Your task to perform on an android device: Go to calendar. Show me events next week Image 0: 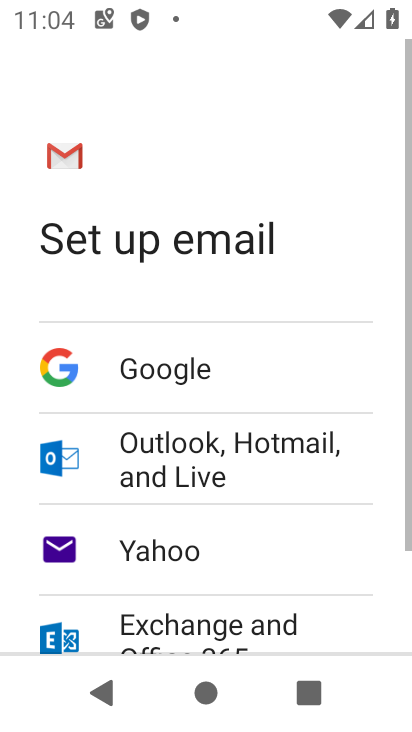
Step 0: drag from (225, 581) to (239, 136)
Your task to perform on an android device: Go to calendar. Show me events next week Image 1: 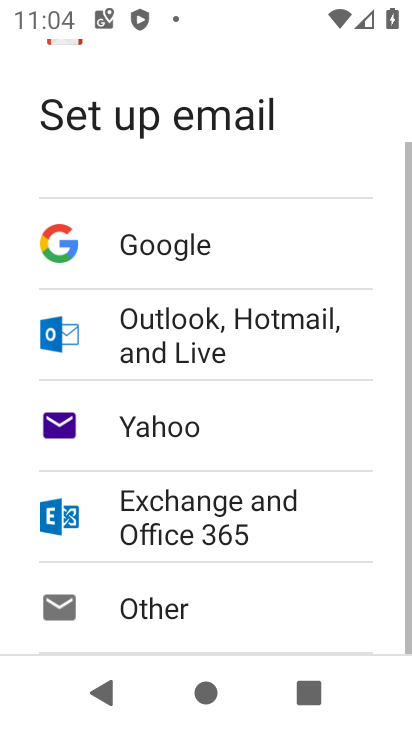
Step 1: press home button
Your task to perform on an android device: Go to calendar. Show me events next week Image 2: 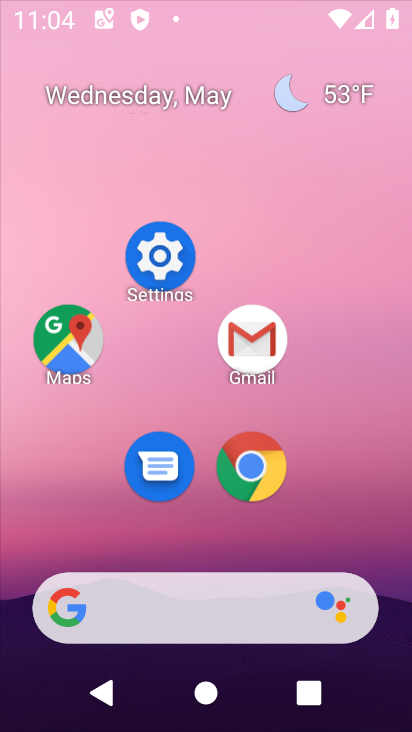
Step 2: drag from (206, 563) to (307, 134)
Your task to perform on an android device: Go to calendar. Show me events next week Image 3: 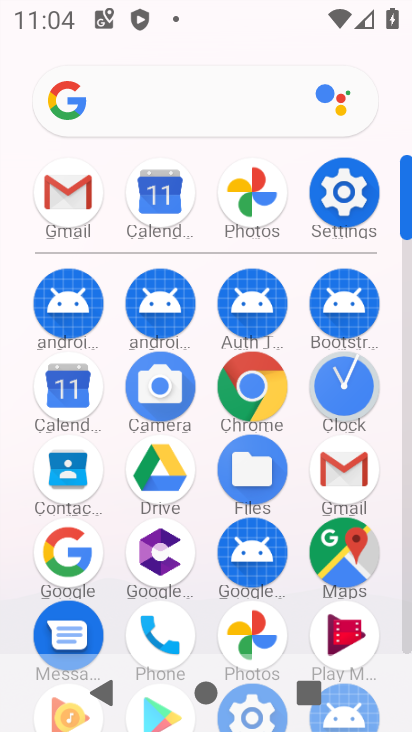
Step 3: click (69, 384)
Your task to perform on an android device: Go to calendar. Show me events next week Image 4: 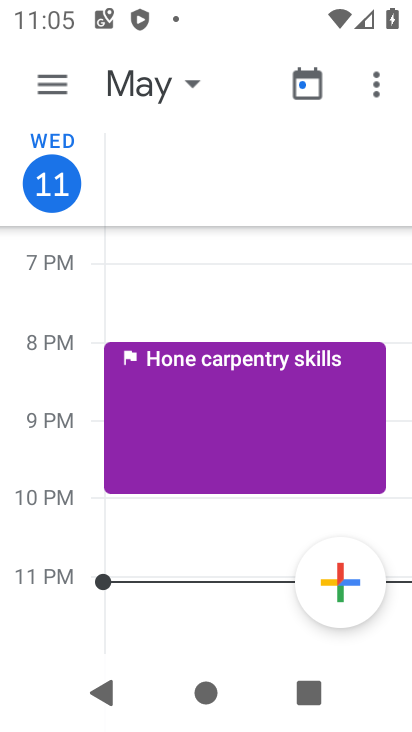
Step 4: click (169, 74)
Your task to perform on an android device: Go to calendar. Show me events next week Image 5: 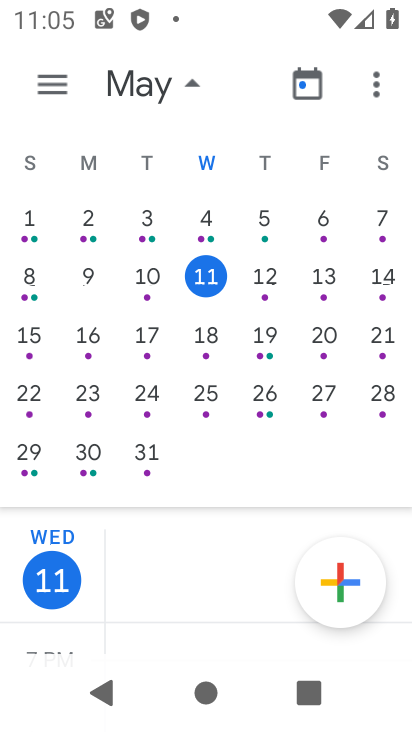
Step 5: drag from (217, 554) to (231, 358)
Your task to perform on an android device: Go to calendar. Show me events next week Image 6: 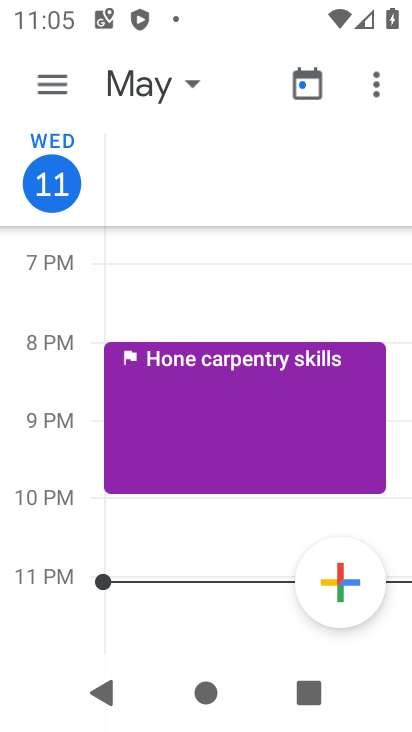
Step 6: drag from (249, 270) to (308, 589)
Your task to perform on an android device: Go to calendar. Show me events next week Image 7: 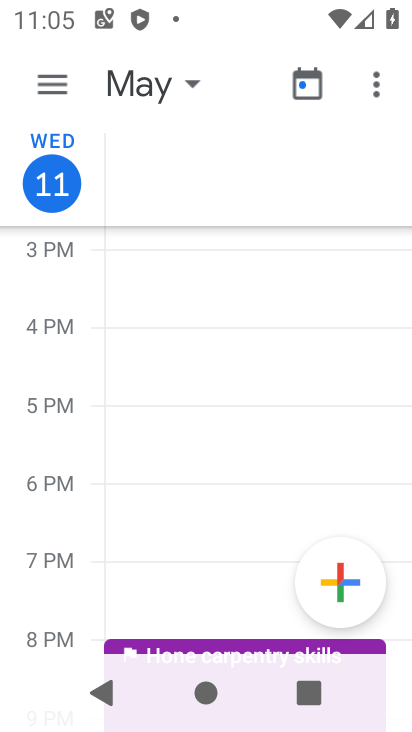
Step 7: drag from (265, 541) to (268, 318)
Your task to perform on an android device: Go to calendar. Show me events next week Image 8: 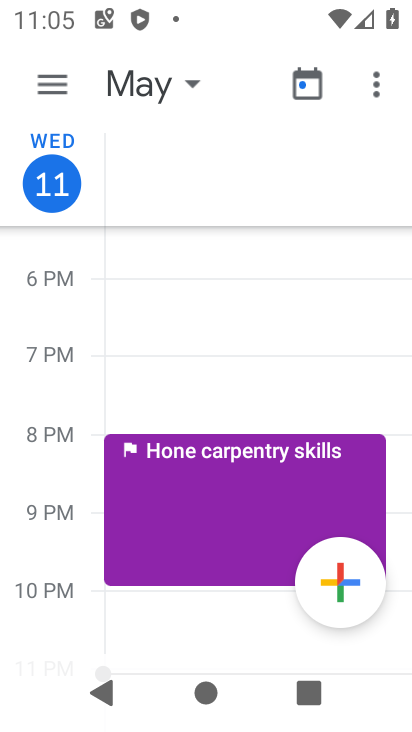
Step 8: drag from (245, 492) to (244, 237)
Your task to perform on an android device: Go to calendar. Show me events next week Image 9: 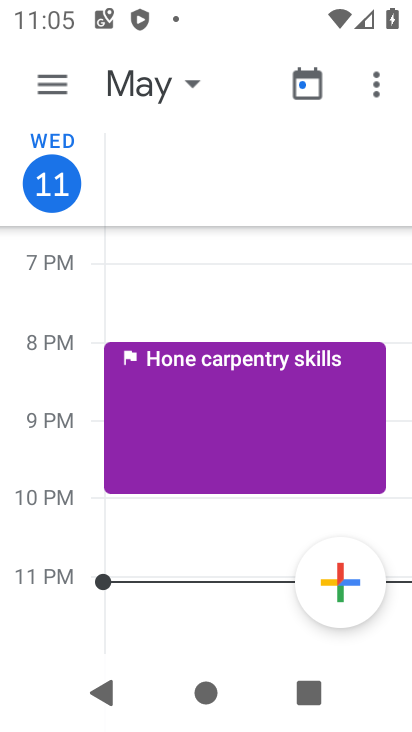
Step 9: drag from (242, 481) to (260, 281)
Your task to perform on an android device: Go to calendar. Show me events next week Image 10: 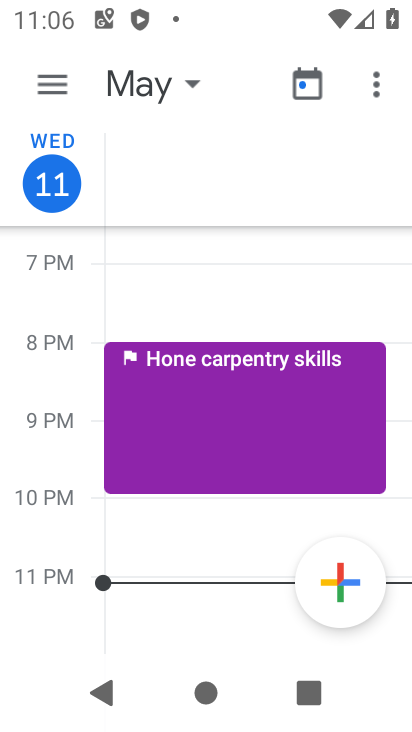
Step 10: drag from (202, 505) to (203, 268)
Your task to perform on an android device: Go to calendar. Show me events next week Image 11: 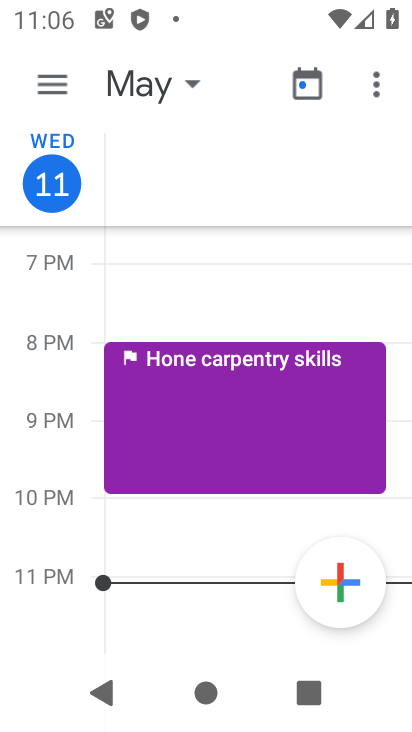
Step 11: click (171, 73)
Your task to perform on an android device: Go to calendar. Show me events next week Image 12: 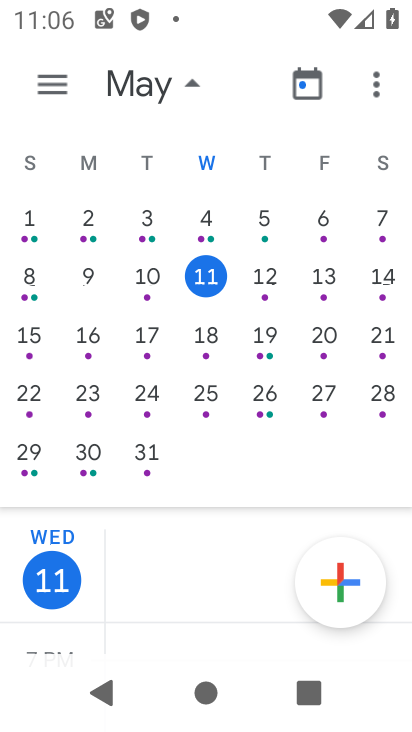
Step 12: click (217, 336)
Your task to perform on an android device: Go to calendar. Show me events next week Image 13: 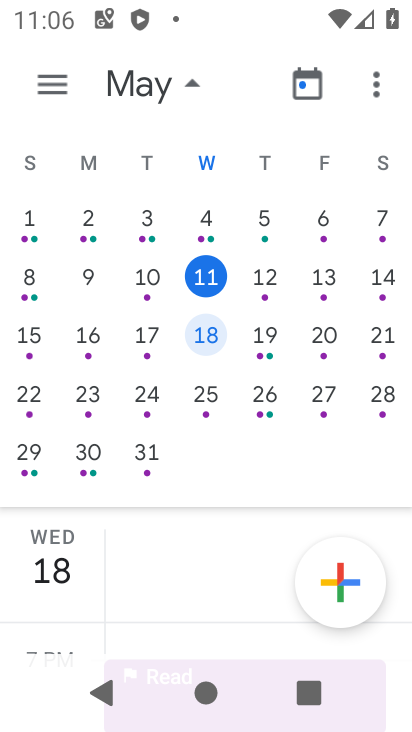
Step 13: task complete